Your task to perform on an android device: set default search engine in the chrome app Image 0: 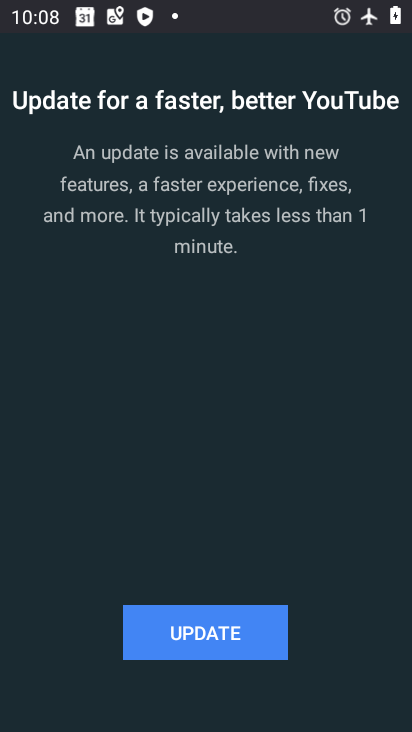
Step 0: press home button
Your task to perform on an android device: set default search engine in the chrome app Image 1: 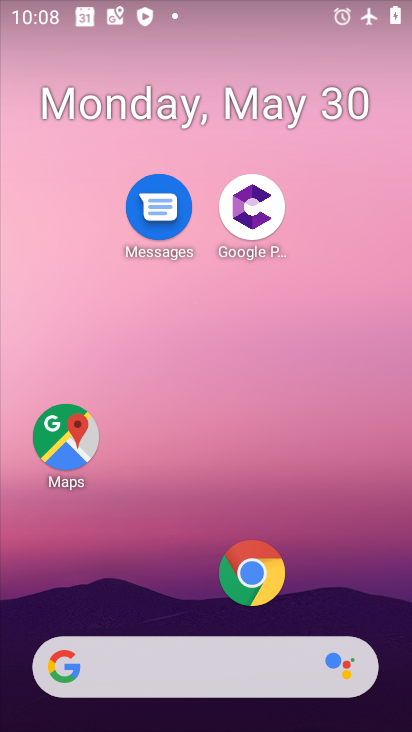
Step 1: drag from (241, 649) to (298, 93)
Your task to perform on an android device: set default search engine in the chrome app Image 2: 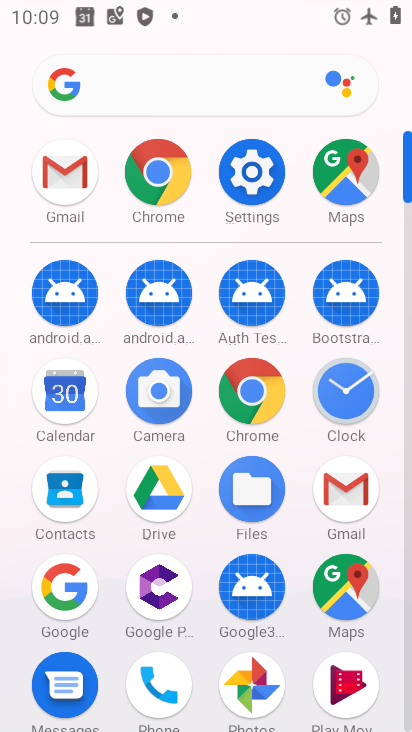
Step 2: click (140, 175)
Your task to perform on an android device: set default search engine in the chrome app Image 3: 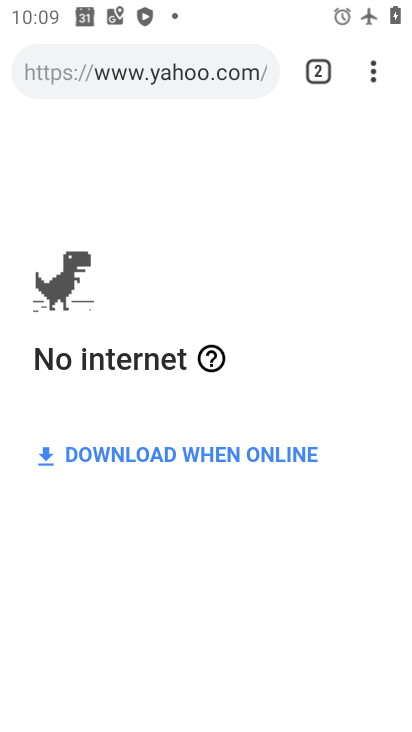
Step 3: click (376, 76)
Your task to perform on an android device: set default search engine in the chrome app Image 4: 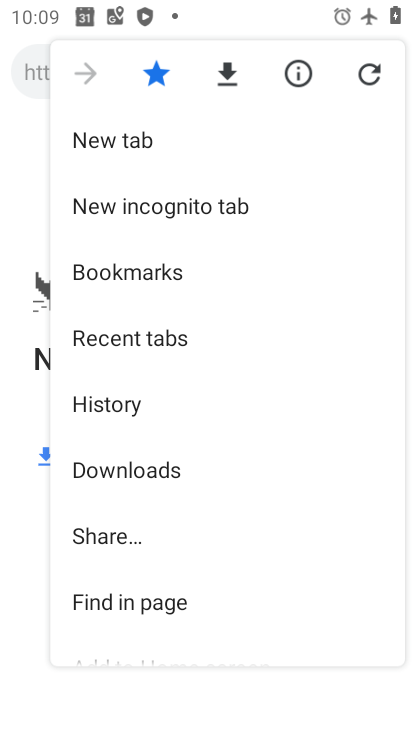
Step 4: drag from (226, 535) to (221, 148)
Your task to perform on an android device: set default search engine in the chrome app Image 5: 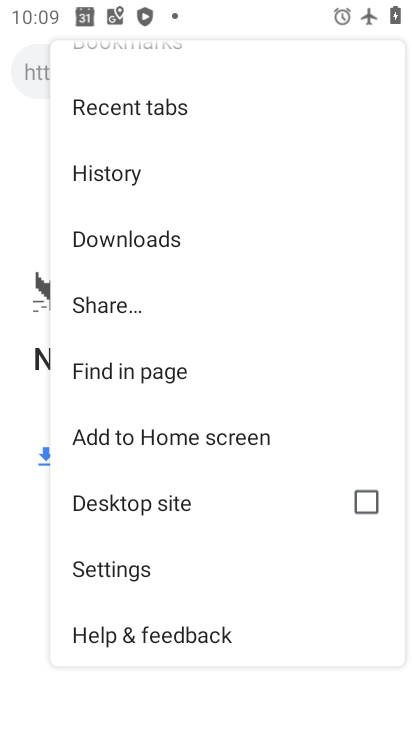
Step 5: click (163, 570)
Your task to perform on an android device: set default search engine in the chrome app Image 6: 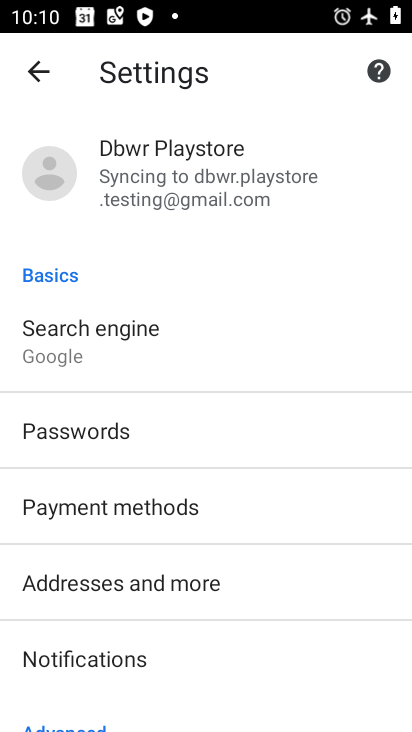
Step 6: click (163, 360)
Your task to perform on an android device: set default search engine in the chrome app Image 7: 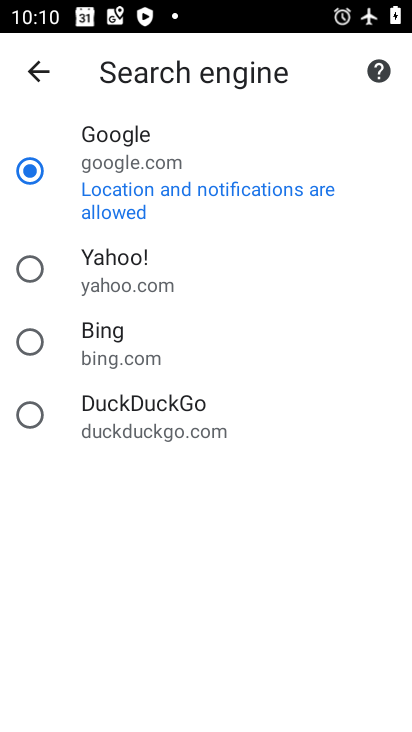
Step 7: task complete